Your task to perform on an android device: change notification settings in the gmail app Image 0: 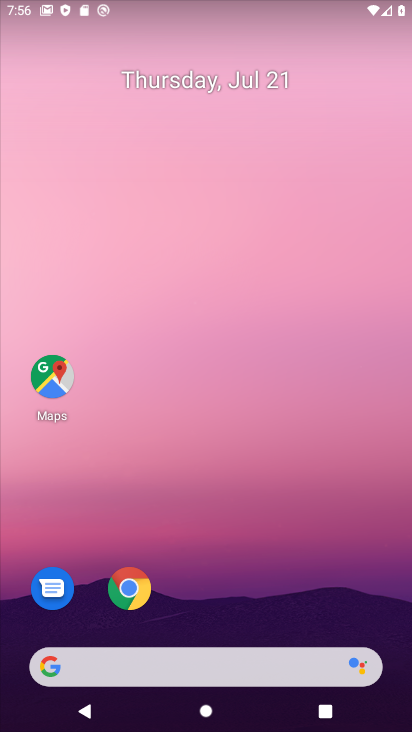
Step 0: drag from (319, 577) to (331, 101)
Your task to perform on an android device: change notification settings in the gmail app Image 1: 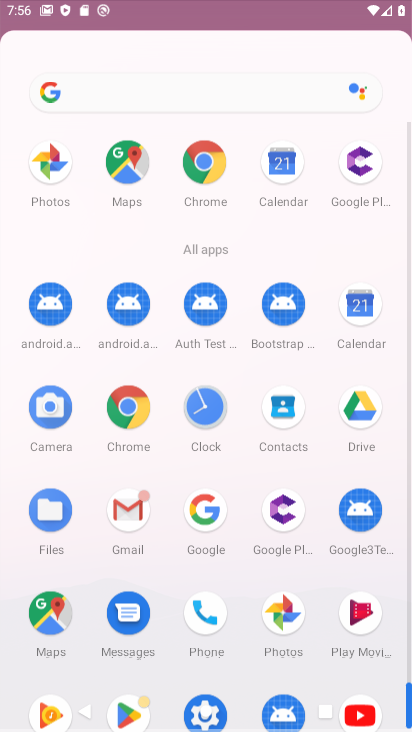
Step 1: drag from (278, 483) to (181, 67)
Your task to perform on an android device: change notification settings in the gmail app Image 2: 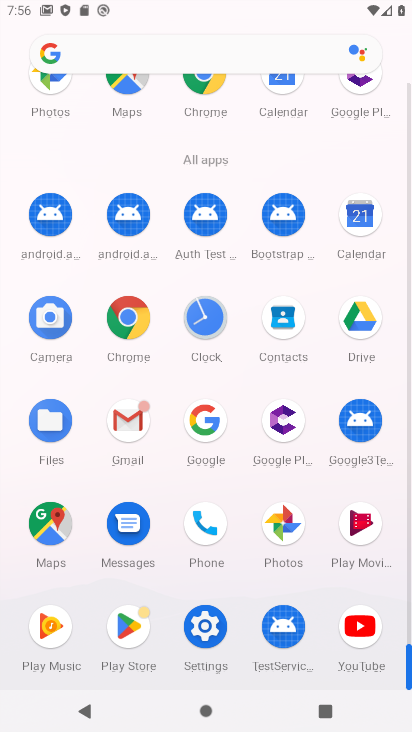
Step 2: click (207, 625)
Your task to perform on an android device: change notification settings in the gmail app Image 3: 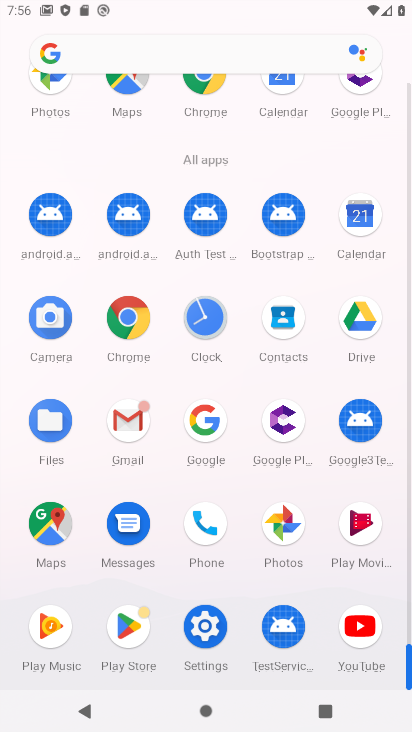
Step 3: click (207, 625)
Your task to perform on an android device: change notification settings in the gmail app Image 4: 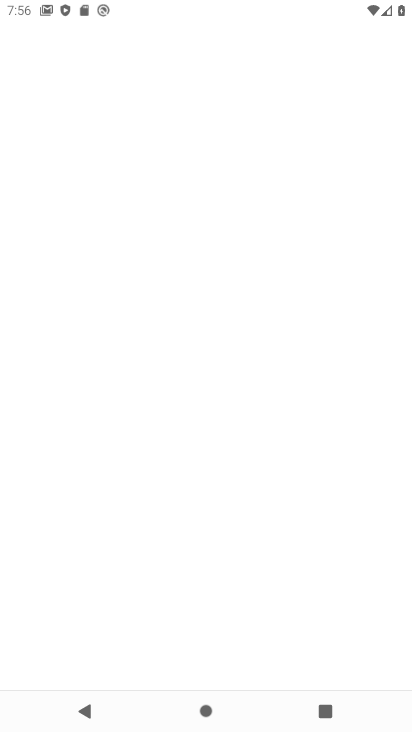
Step 4: click (203, 633)
Your task to perform on an android device: change notification settings in the gmail app Image 5: 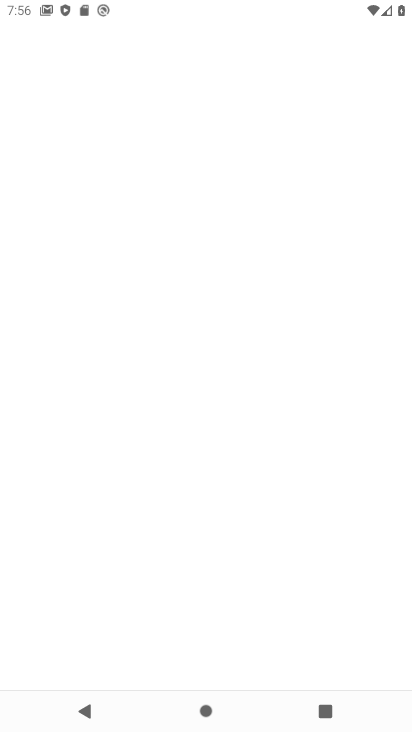
Step 5: press back button
Your task to perform on an android device: change notification settings in the gmail app Image 6: 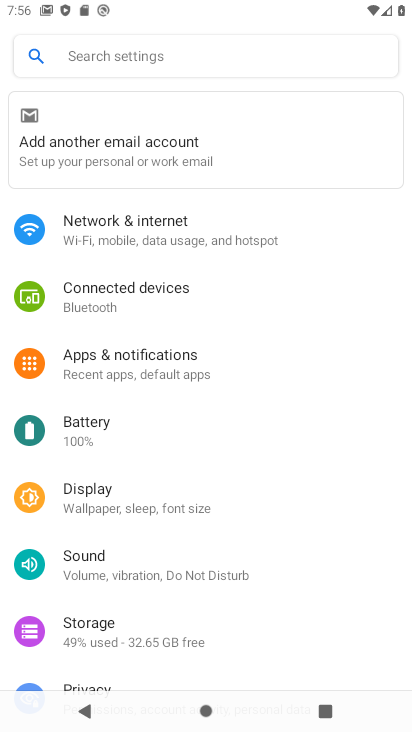
Step 6: press back button
Your task to perform on an android device: change notification settings in the gmail app Image 7: 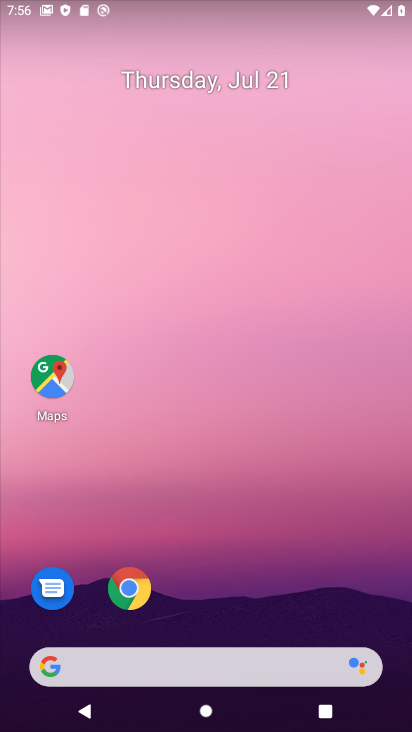
Step 7: drag from (273, 429) to (230, 209)
Your task to perform on an android device: change notification settings in the gmail app Image 8: 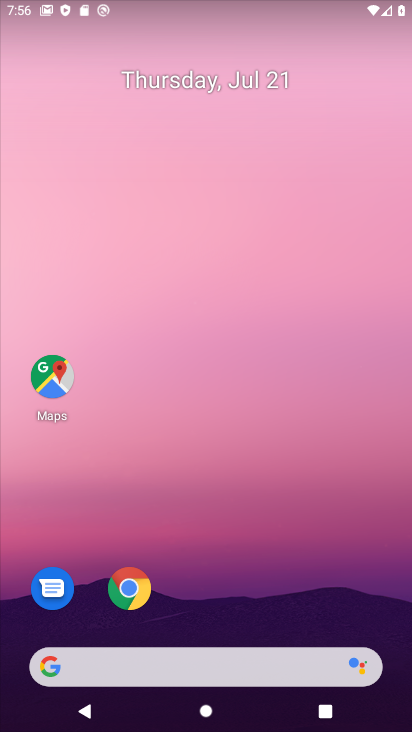
Step 8: drag from (248, 462) to (212, 166)
Your task to perform on an android device: change notification settings in the gmail app Image 9: 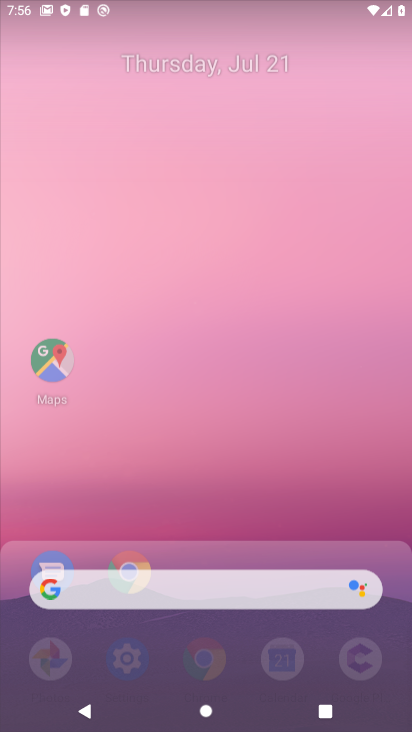
Step 9: drag from (175, 600) to (162, 143)
Your task to perform on an android device: change notification settings in the gmail app Image 10: 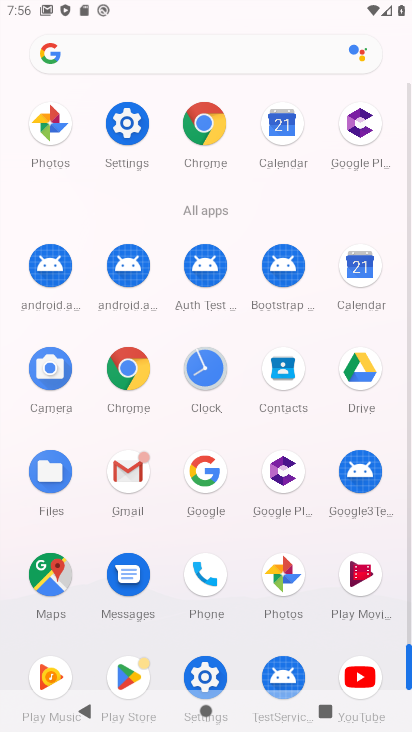
Step 10: click (123, 468)
Your task to perform on an android device: change notification settings in the gmail app Image 11: 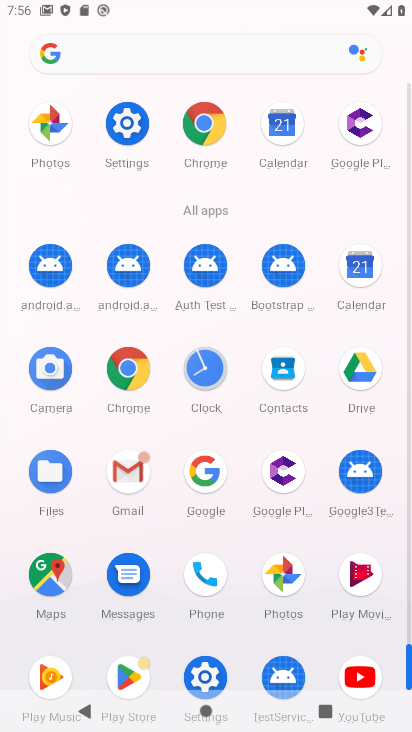
Step 11: click (126, 466)
Your task to perform on an android device: change notification settings in the gmail app Image 12: 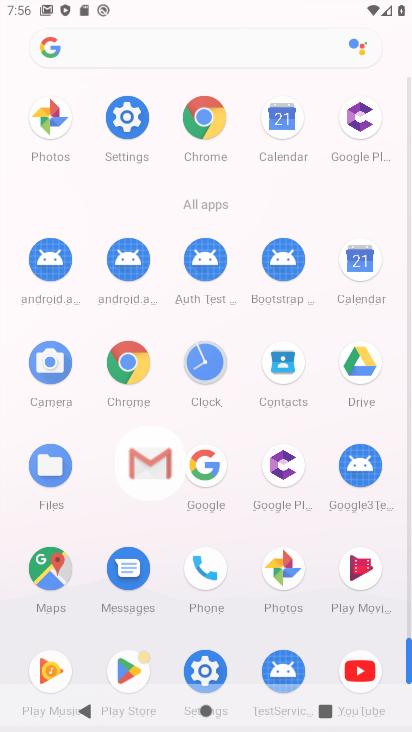
Step 12: click (127, 465)
Your task to perform on an android device: change notification settings in the gmail app Image 13: 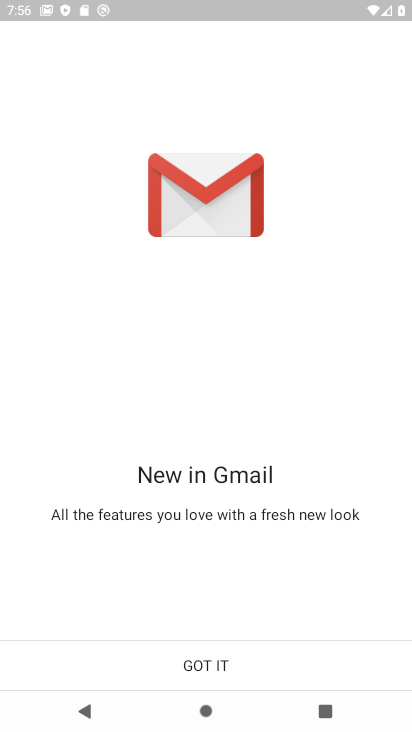
Step 13: click (219, 669)
Your task to perform on an android device: change notification settings in the gmail app Image 14: 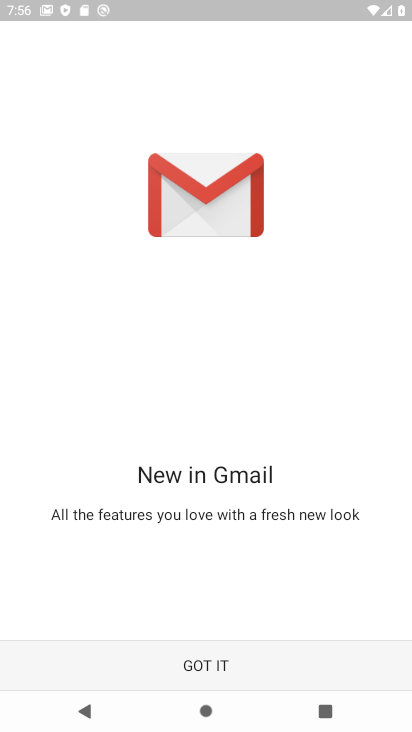
Step 14: click (217, 664)
Your task to perform on an android device: change notification settings in the gmail app Image 15: 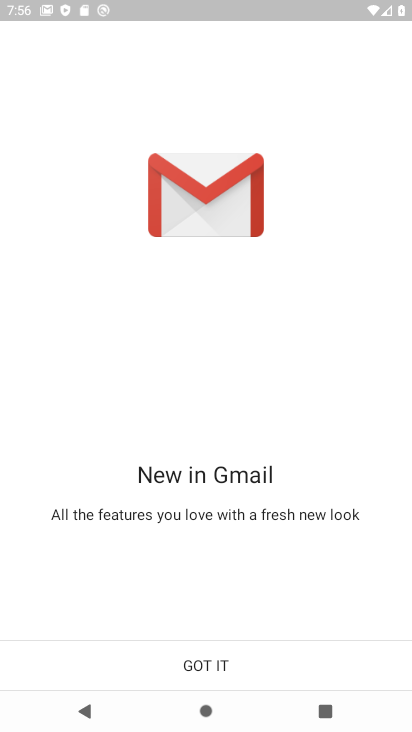
Step 15: click (215, 662)
Your task to perform on an android device: change notification settings in the gmail app Image 16: 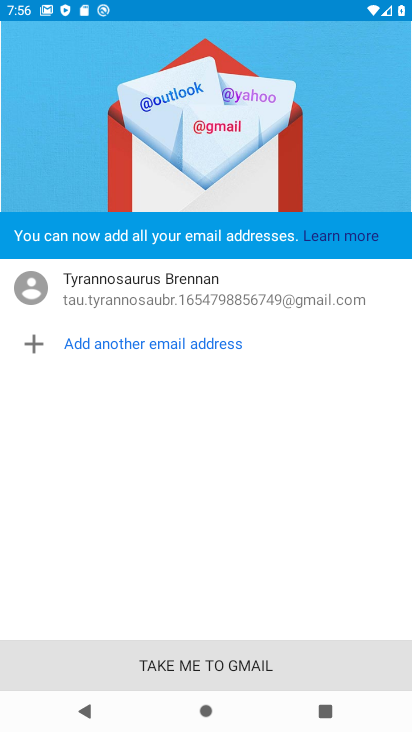
Step 16: click (215, 662)
Your task to perform on an android device: change notification settings in the gmail app Image 17: 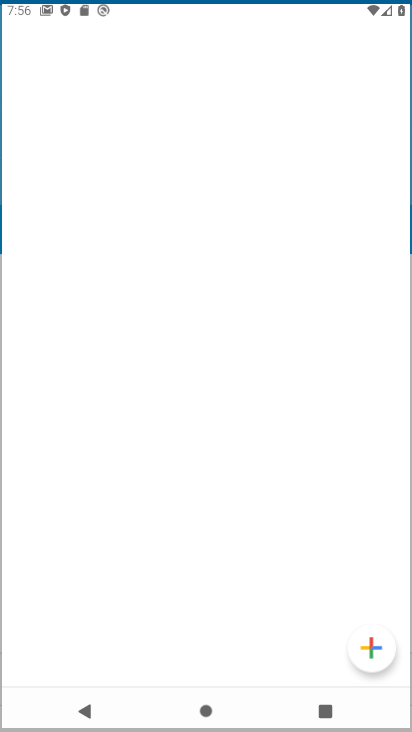
Step 17: click (215, 662)
Your task to perform on an android device: change notification settings in the gmail app Image 18: 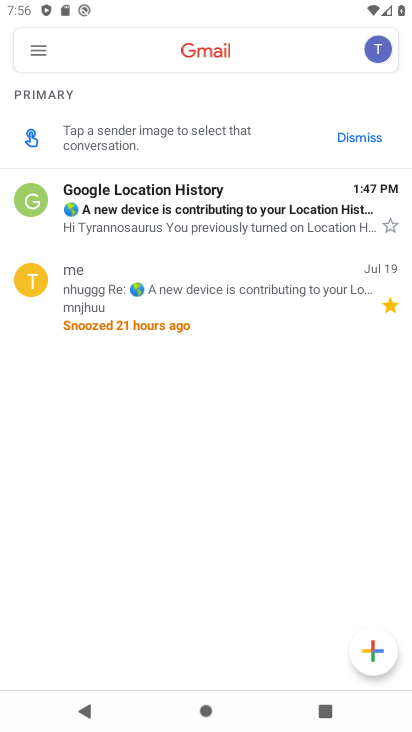
Step 18: click (44, 50)
Your task to perform on an android device: change notification settings in the gmail app Image 19: 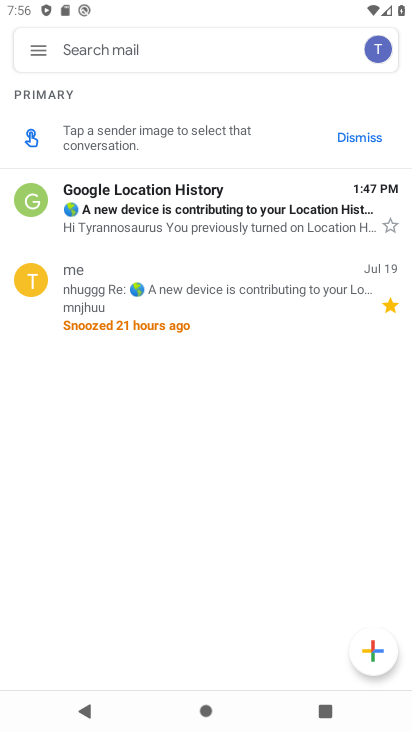
Step 19: click (43, 61)
Your task to perform on an android device: change notification settings in the gmail app Image 20: 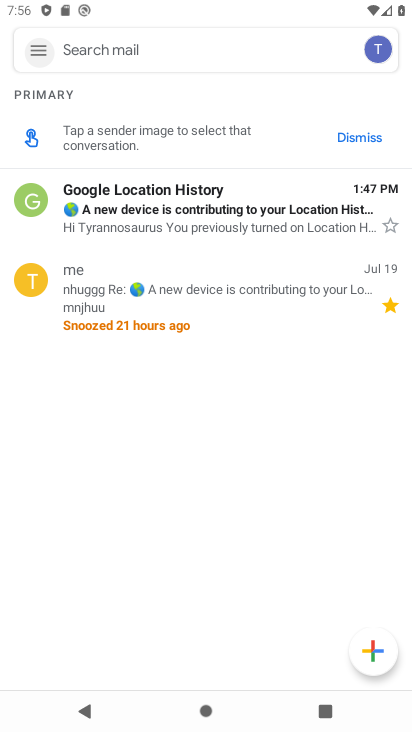
Step 20: click (43, 61)
Your task to perform on an android device: change notification settings in the gmail app Image 21: 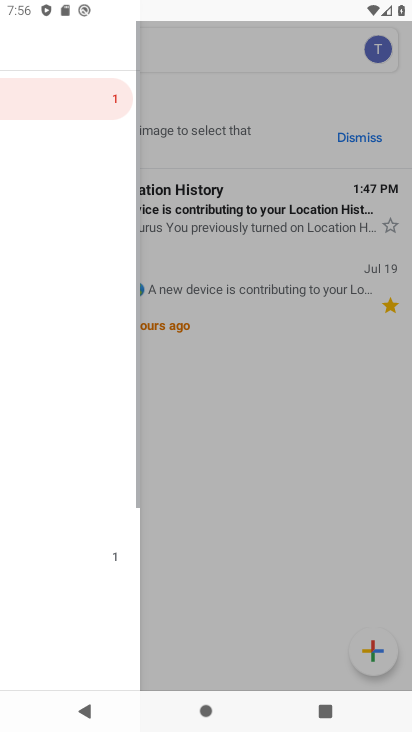
Step 21: click (43, 61)
Your task to perform on an android device: change notification settings in the gmail app Image 22: 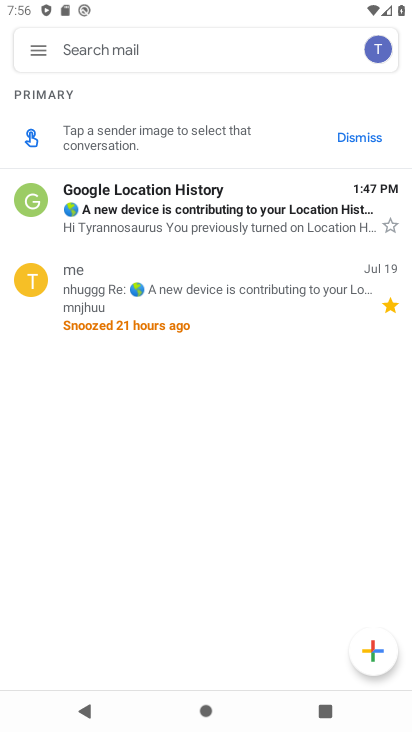
Step 22: click (43, 61)
Your task to perform on an android device: change notification settings in the gmail app Image 23: 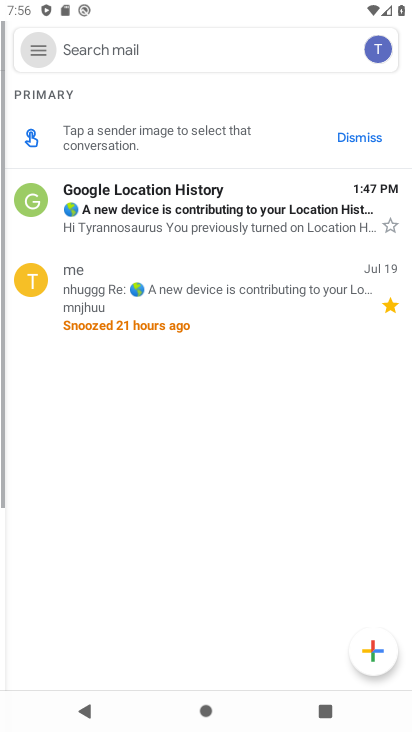
Step 23: click (43, 61)
Your task to perform on an android device: change notification settings in the gmail app Image 24: 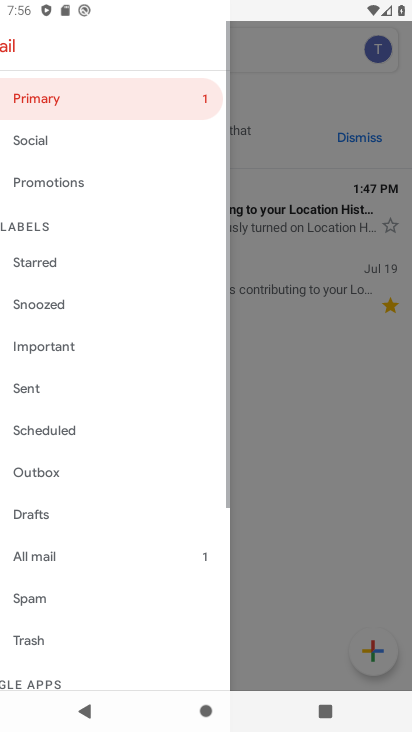
Step 24: click (43, 61)
Your task to perform on an android device: change notification settings in the gmail app Image 25: 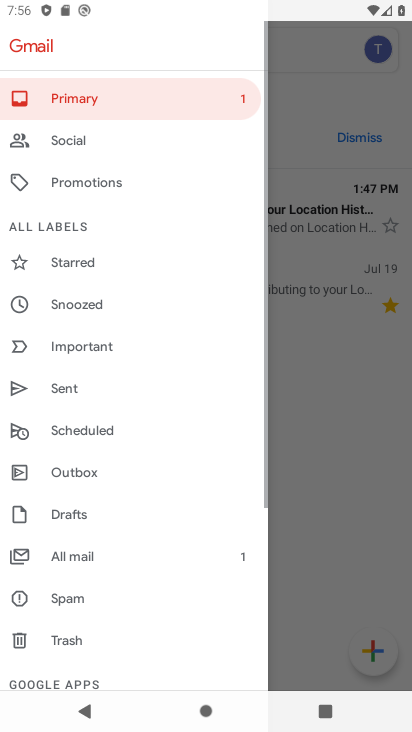
Step 25: click (43, 61)
Your task to perform on an android device: change notification settings in the gmail app Image 26: 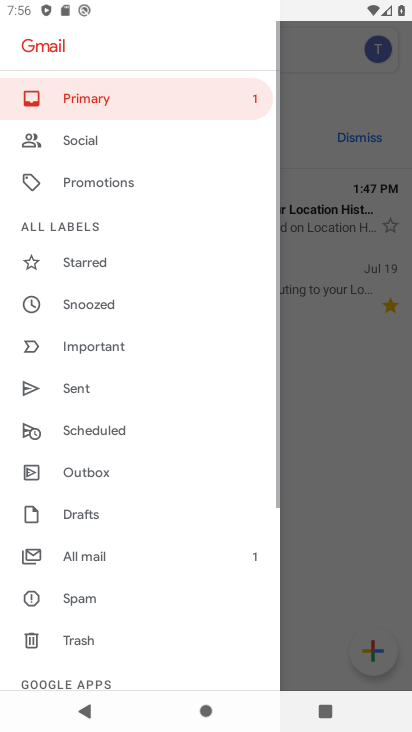
Step 26: drag from (111, 545) to (146, 160)
Your task to perform on an android device: change notification settings in the gmail app Image 27: 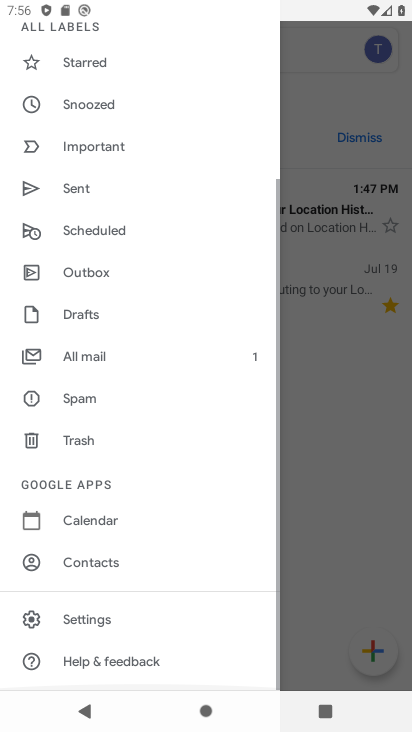
Step 27: drag from (104, 511) to (135, 224)
Your task to perform on an android device: change notification settings in the gmail app Image 28: 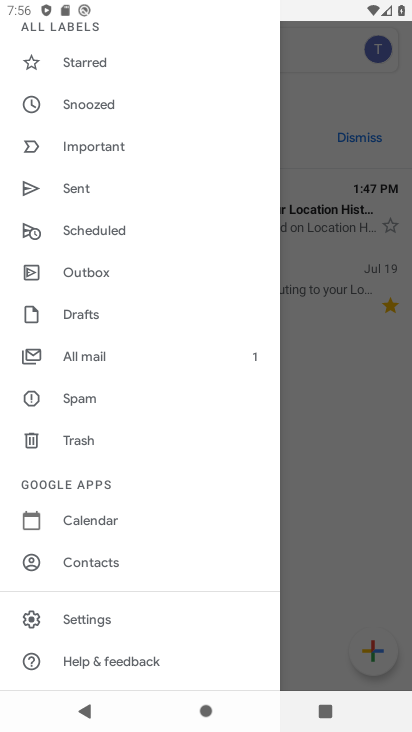
Step 28: click (85, 620)
Your task to perform on an android device: change notification settings in the gmail app Image 29: 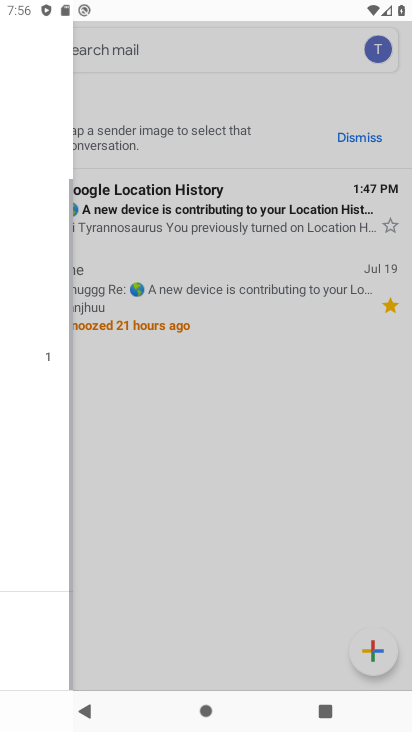
Step 29: click (84, 618)
Your task to perform on an android device: change notification settings in the gmail app Image 30: 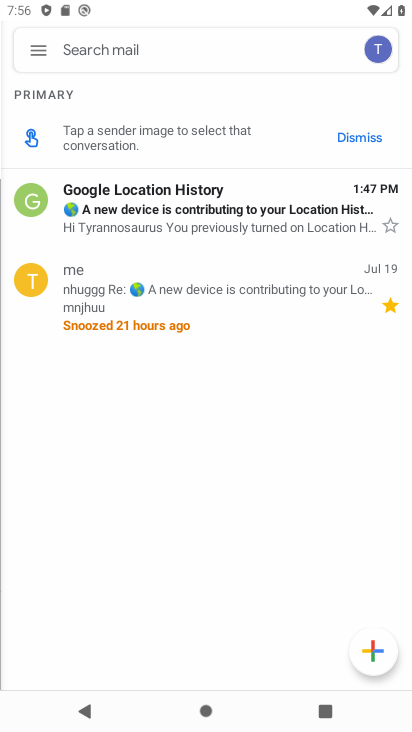
Step 30: click (84, 618)
Your task to perform on an android device: change notification settings in the gmail app Image 31: 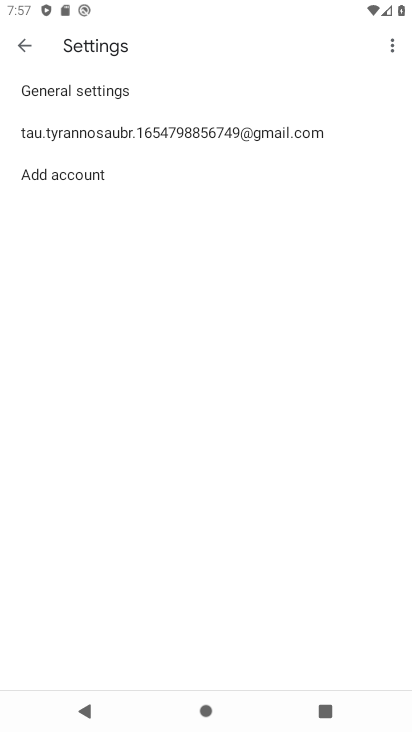
Step 31: click (114, 147)
Your task to perform on an android device: change notification settings in the gmail app Image 32: 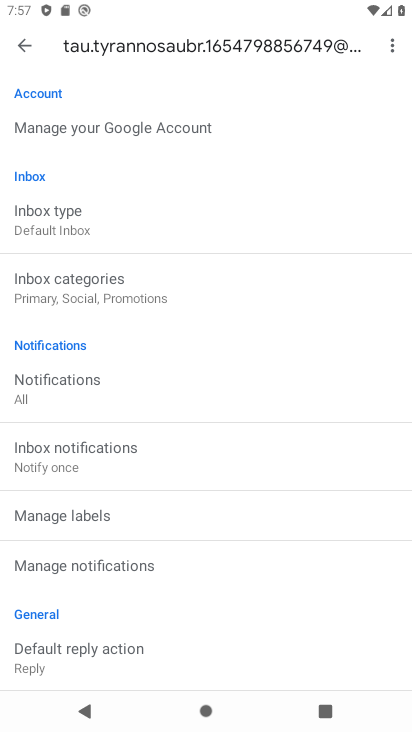
Step 32: click (26, 380)
Your task to perform on an android device: change notification settings in the gmail app Image 33: 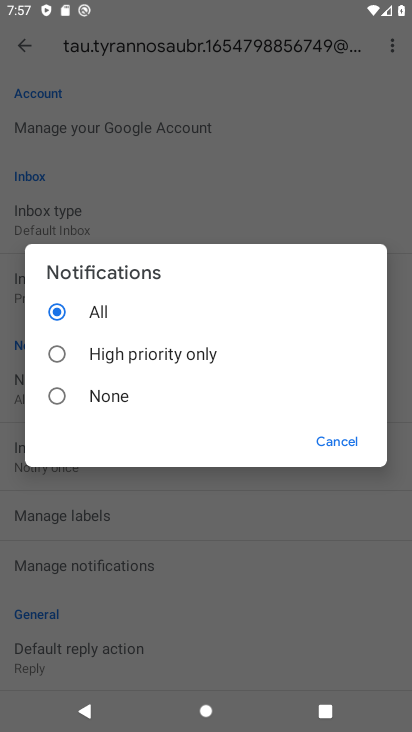
Step 33: click (57, 356)
Your task to perform on an android device: change notification settings in the gmail app Image 34: 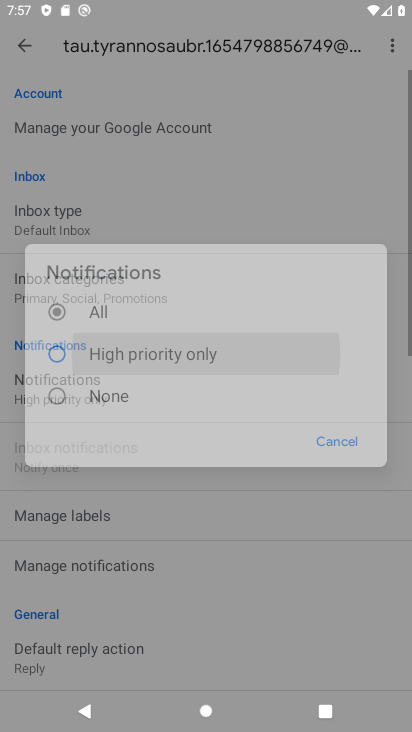
Step 34: click (57, 356)
Your task to perform on an android device: change notification settings in the gmail app Image 35: 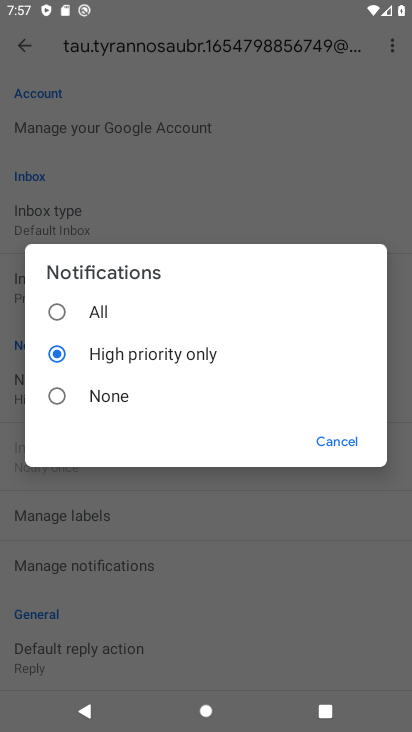
Step 35: click (326, 438)
Your task to perform on an android device: change notification settings in the gmail app Image 36: 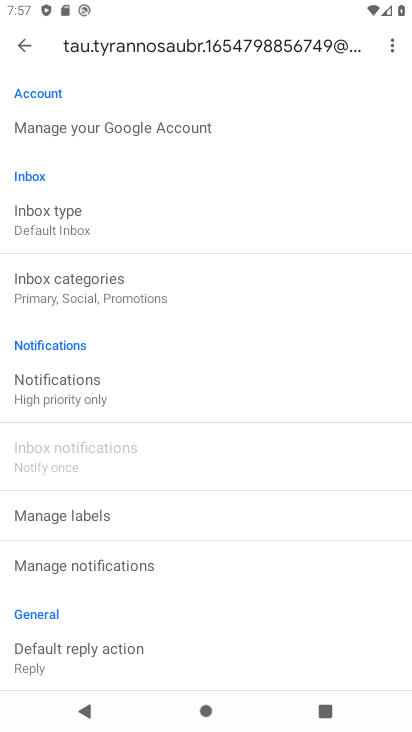
Step 36: task complete